Your task to perform on an android device: turn off priority inbox in the gmail app Image 0: 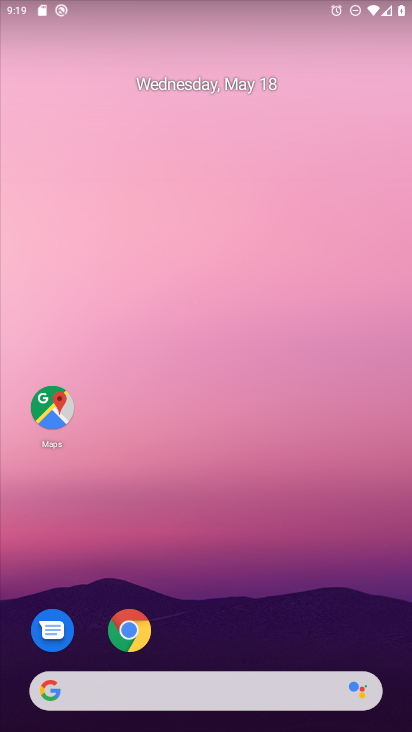
Step 0: drag from (206, 646) to (141, 148)
Your task to perform on an android device: turn off priority inbox in the gmail app Image 1: 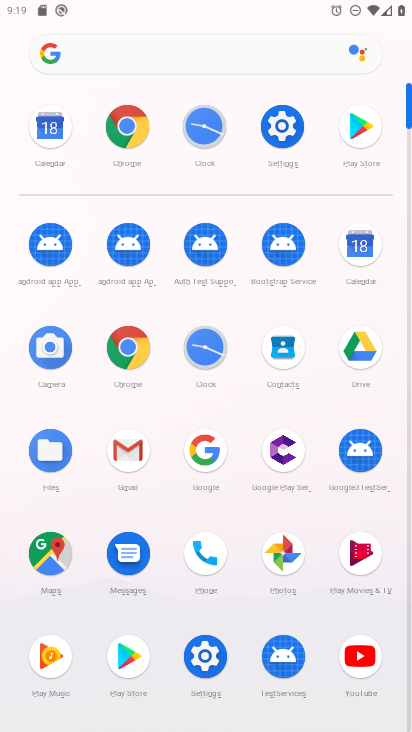
Step 1: click (120, 446)
Your task to perform on an android device: turn off priority inbox in the gmail app Image 2: 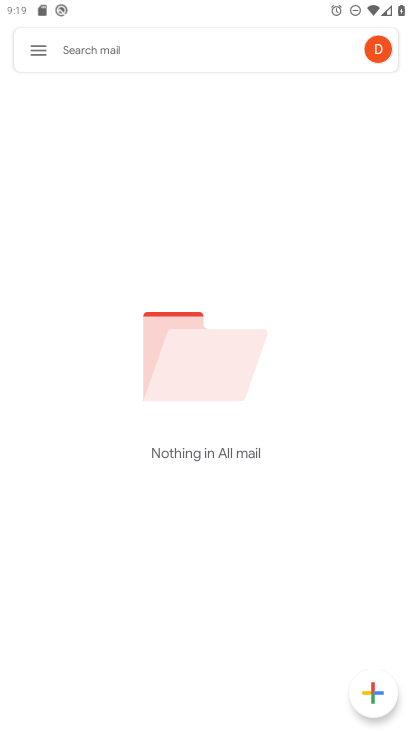
Step 2: press home button
Your task to perform on an android device: turn off priority inbox in the gmail app Image 3: 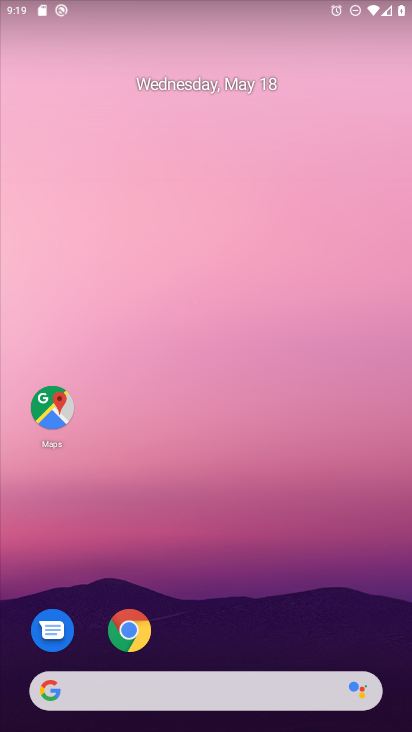
Step 3: drag from (222, 674) to (158, 36)
Your task to perform on an android device: turn off priority inbox in the gmail app Image 4: 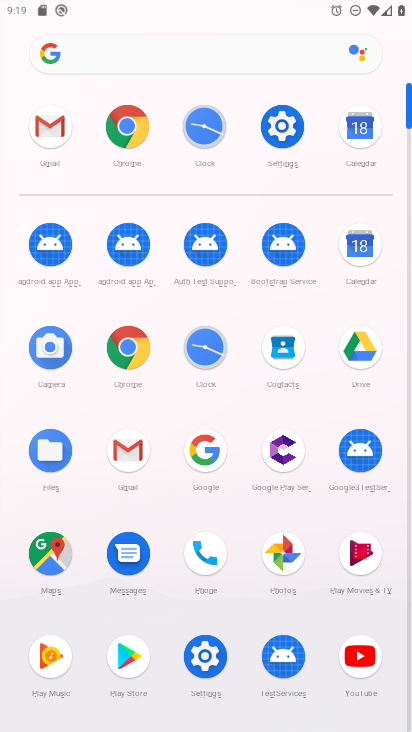
Step 4: click (122, 448)
Your task to perform on an android device: turn off priority inbox in the gmail app Image 5: 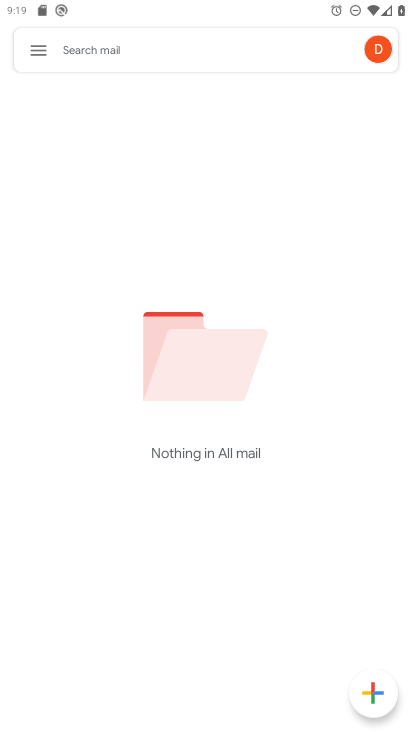
Step 5: click (45, 55)
Your task to perform on an android device: turn off priority inbox in the gmail app Image 6: 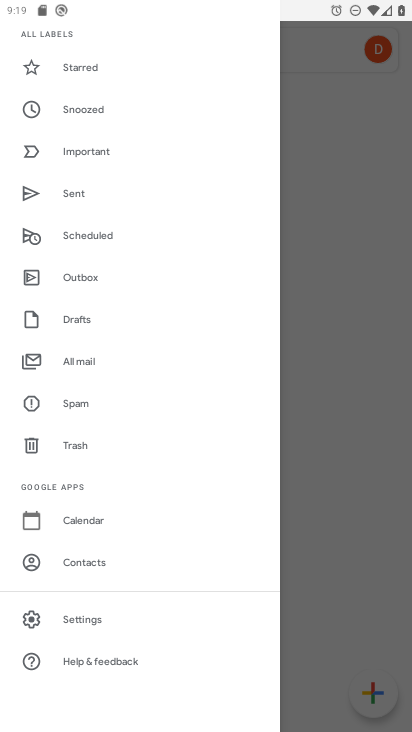
Step 6: click (94, 613)
Your task to perform on an android device: turn off priority inbox in the gmail app Image 7: 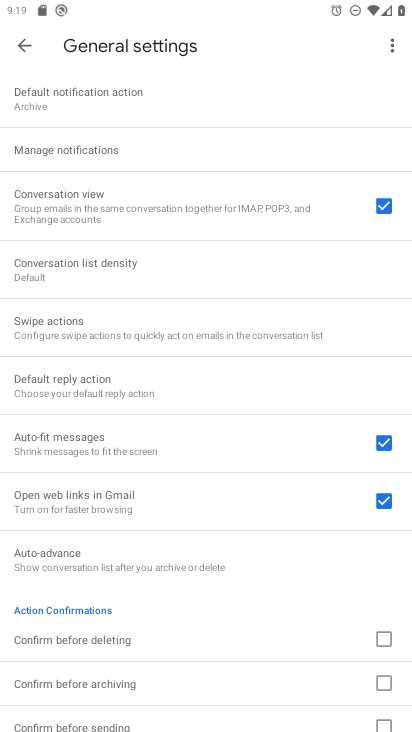
Step 7: drag from (119, 610) to (101, 179)
Your task to perform on an android device: turn off priority inbox in the gmail app Image 8: 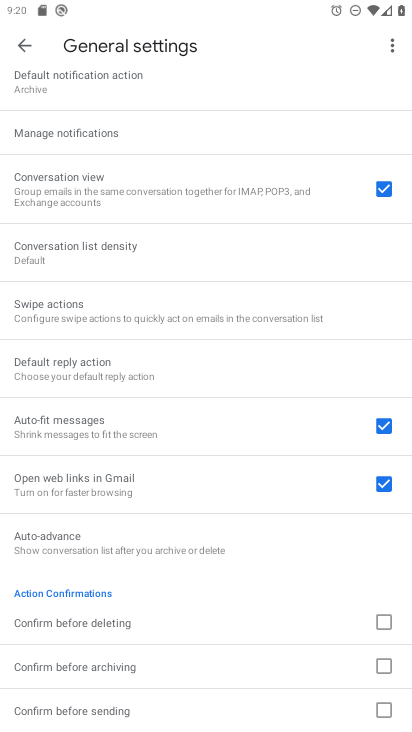
Step 8: drag from (100, 176) to (120, 483)
Your task to perform on an android device: turn off priority inbox in the gmail app Image 9: 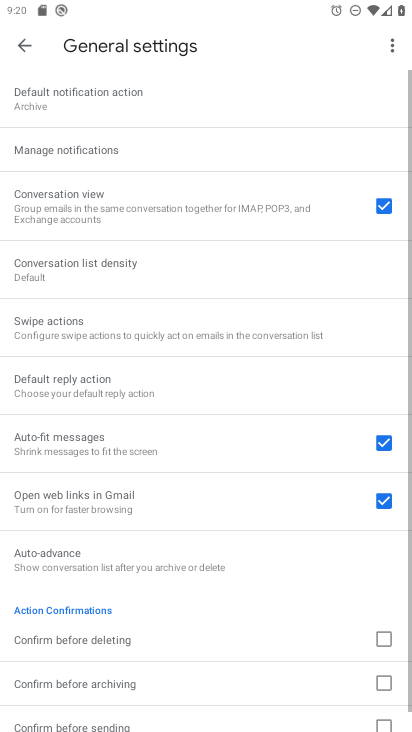
Step 9: click (23, 47)
Your task to perform on an android device: turn off priority inbox in the gmail app Image 10: 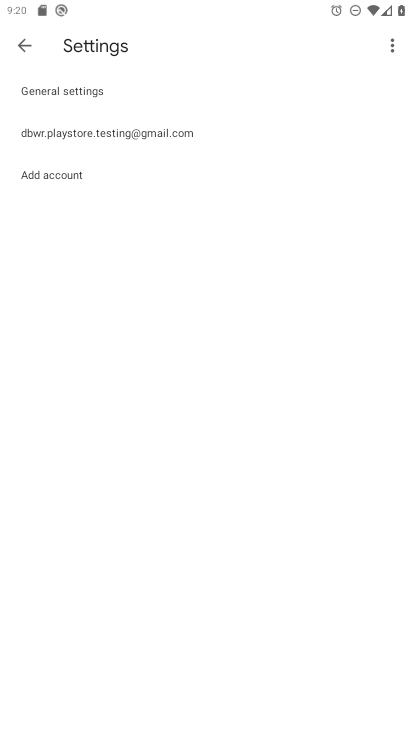
Step 10: click (101, 125)
Your task to perform on an android device: turn off priority inbox in the gmail app Image 11: 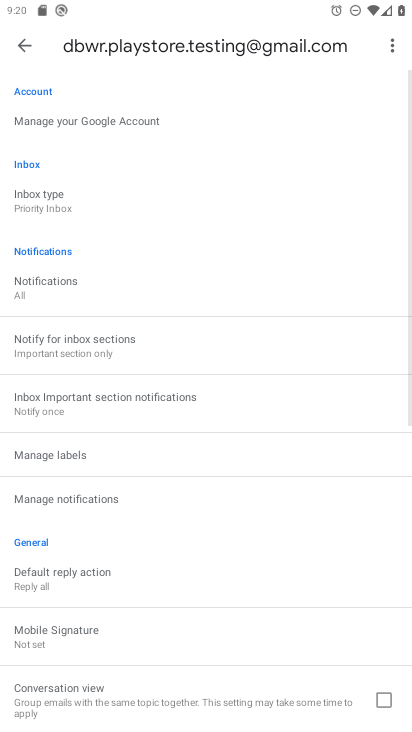
Step 11: click (76, 208)
Your task to perform on an android device: turn off priority inbox in the gmail app Image 12: 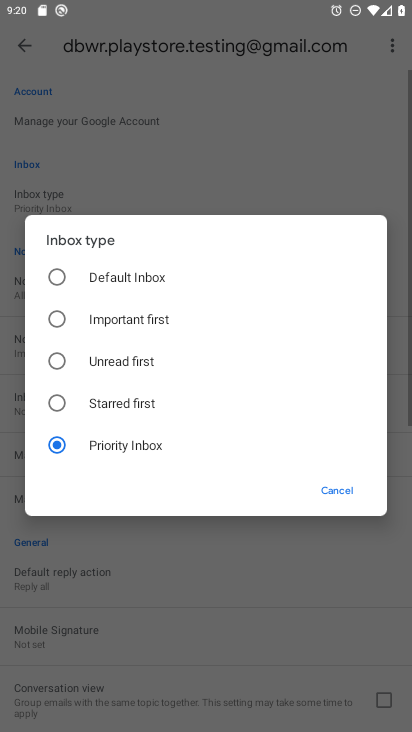
Step 12: click (105, 276)
Your task to perform on an android device: turn off priority inbox in the gmail app Image 13: 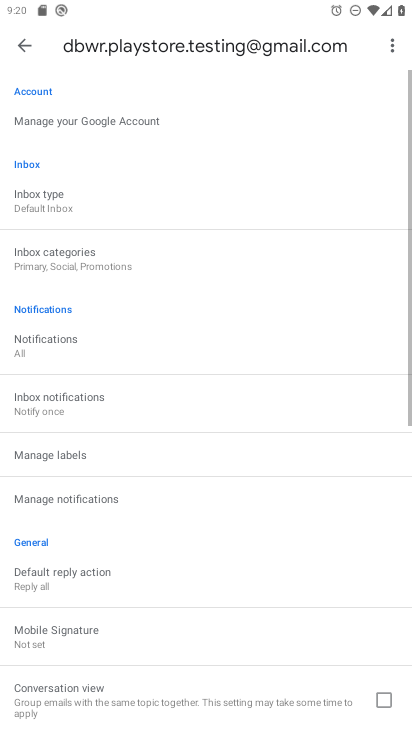
Step 13: task complete